Your task to perform on an android device: toggle wifi Image 0: 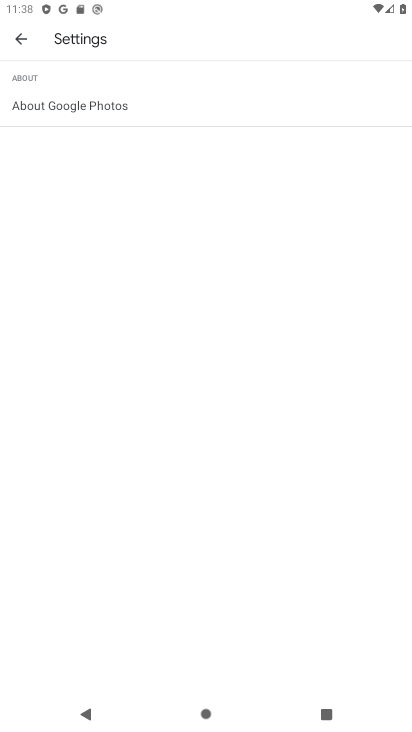
Step 0: press home button
Your task to perform on an android device: toggle wifi Image 1: 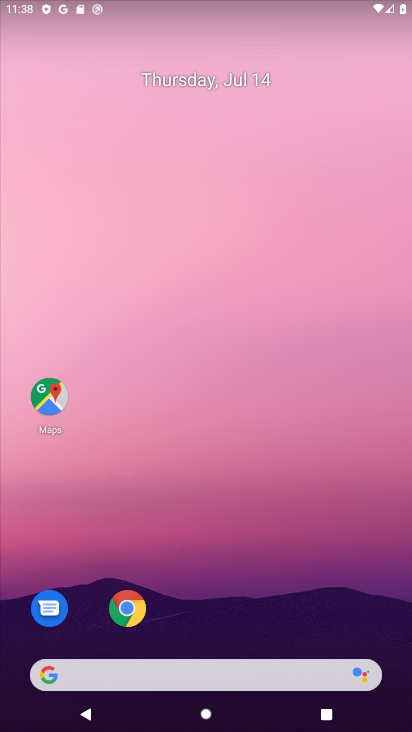
Step 1: drag from (339, 575) to (319, 2)
Your task to perform on an android device: toggle wifi Image 2: 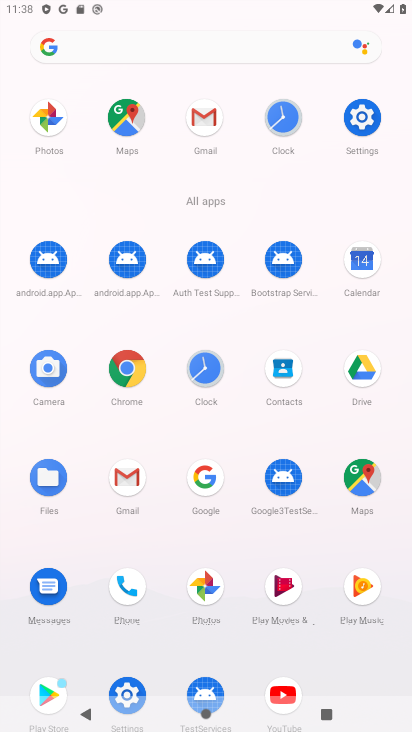
Step 2: click (365, 121)
Your task to perform on an android device: toggle wifi Image 3: 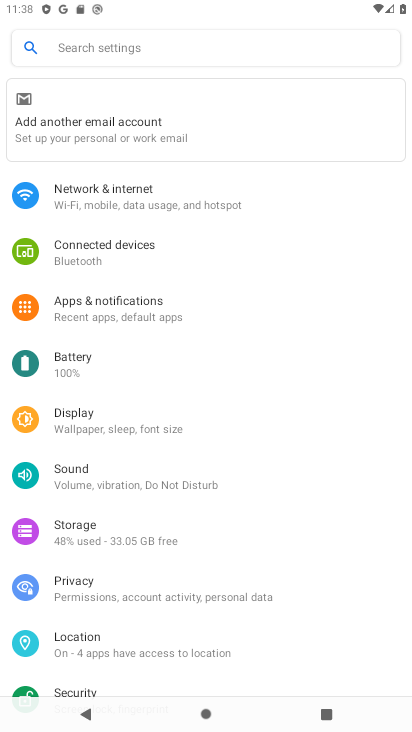
Step 3: click (170, 202)
Your task to perform on an android device: toggle wifi Image 4: 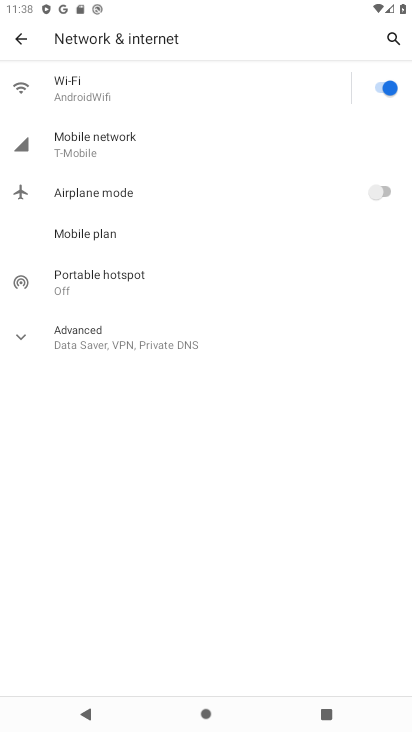
Step 4: click (386, 84)
Your task to perform on an android device: toggle wifi Image 5: 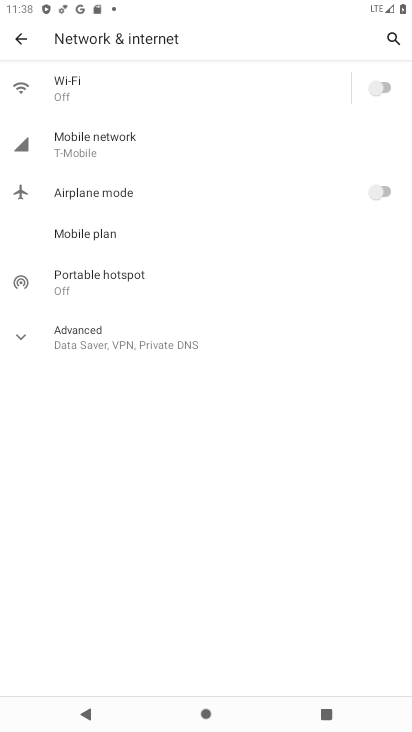
Step 5: task complete